Your task to perform on an android device: open chrome and create a bookmark for the current page Image 0: 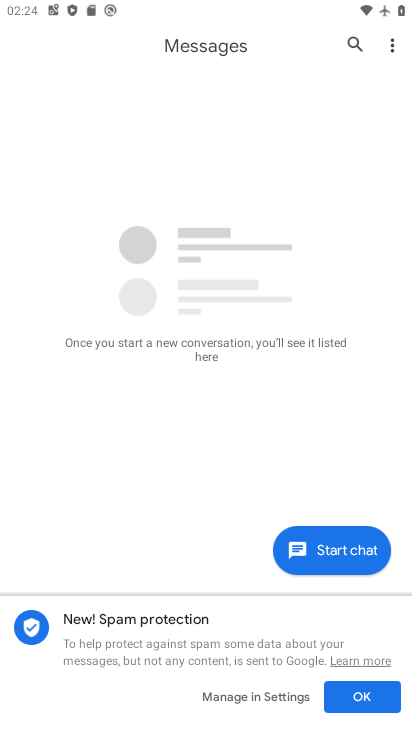
Step 0: press home button
Your task to perform on an android device: open chrome and create a bookmark for the current page Image 1: 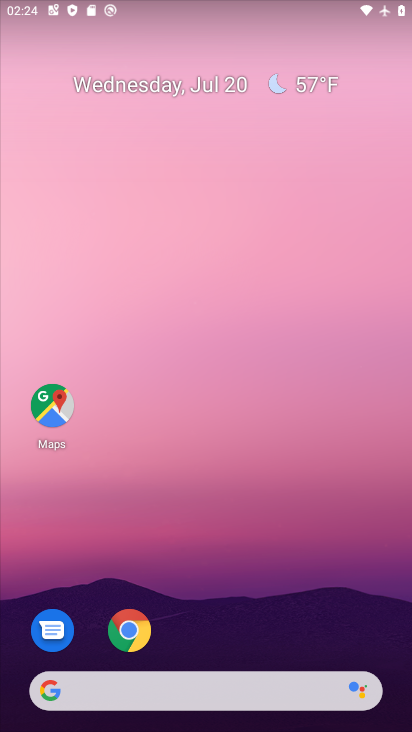
Step 1: drag from (325, 688) to (257, 109)
Your task to perform on an android device: open chrome and create a bookmark for the current page Image 2: 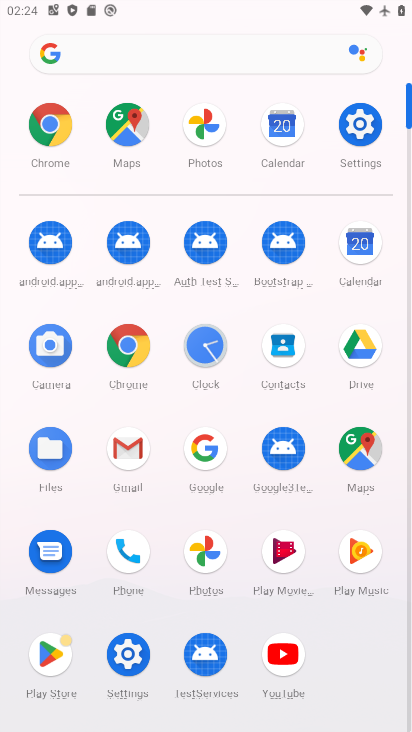
Step 2: click (123, 349)
Your task to perform on an android device: open chrome and create a bookmark for the current page Image 3: 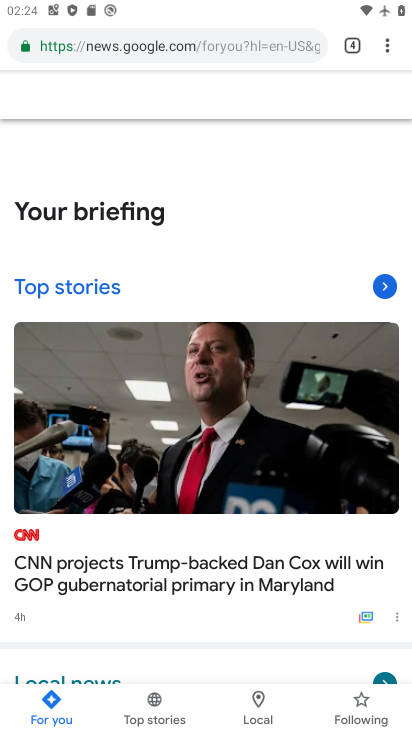
Step 3: task complete